Your task to perform on an android device: open chrome and create a bookmark for the current page Image 0: 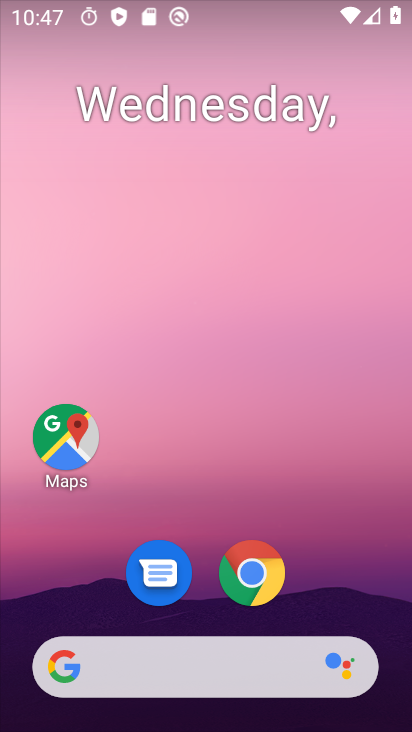
Step 0: click (253, 573)
Your task to perform on an android device: open chrome and create a bookmark for the current page Image 1: 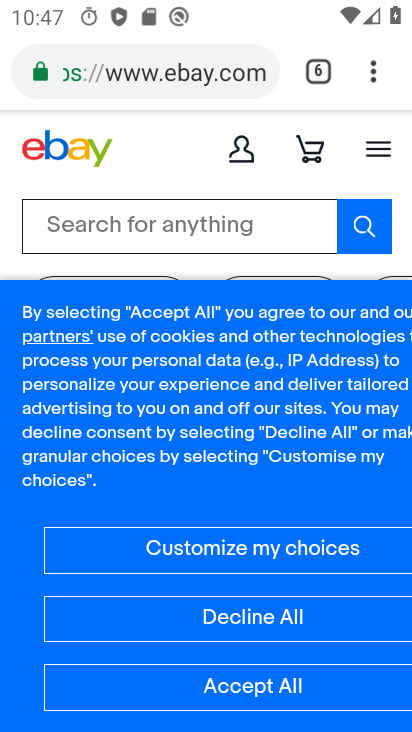
Step 1: click (370, 65)
Your task to perform on an android device: open chrome and create a bookmark for the current page Image 2: 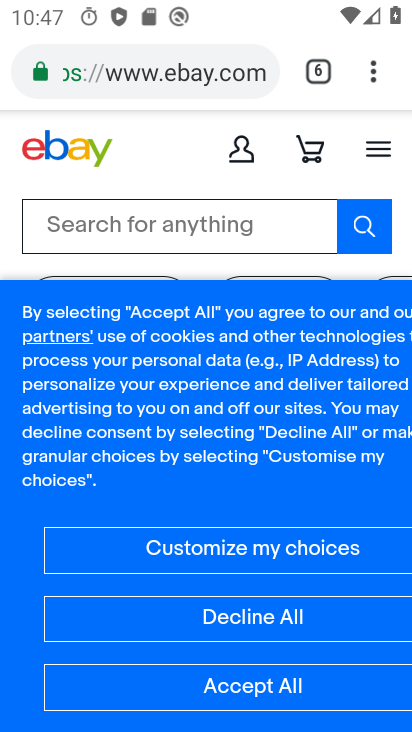
Step 2: click (370, 71)
Your task to perform on an android device: open chrome and create a bookmark for the current page Image 3: 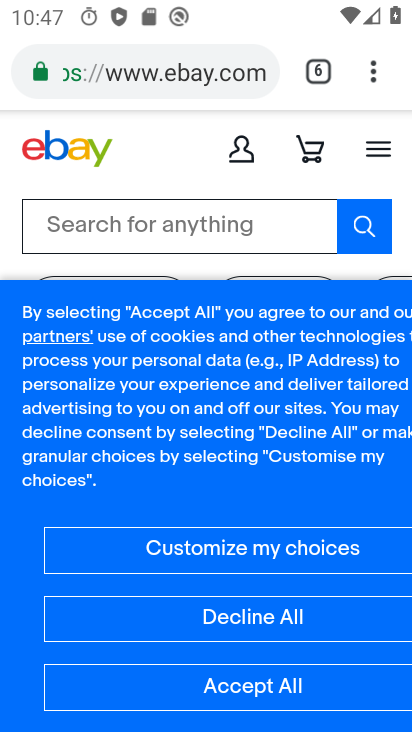
Step 3: click (374, 66)
Your task to perform on an android device: open chrome and create a bookmark for the current page Image 4: 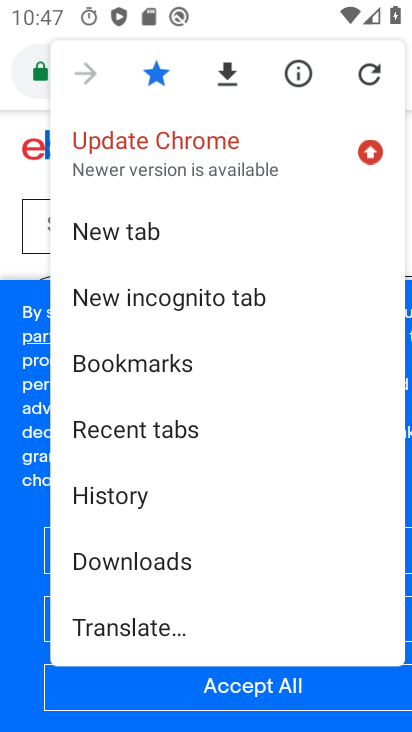
Step 4: click (138, 230)
Your task to perform on an android device: open chrome and create a bookmark for the current page Image 5: 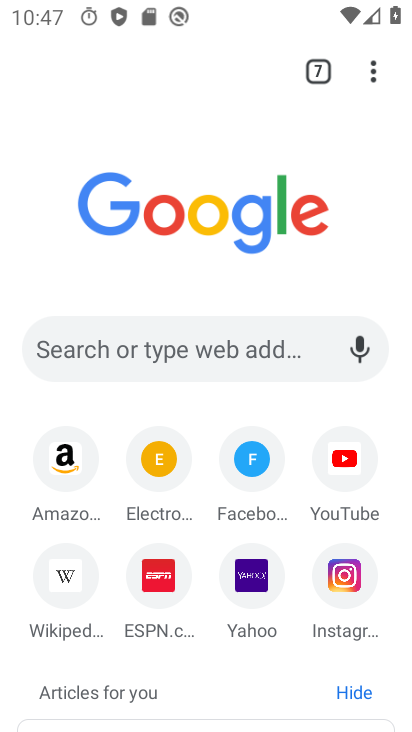
Step 5: click (163, 355)
Your task to perform on an android device: open chrome and create a bookmark for the current page Image 6: 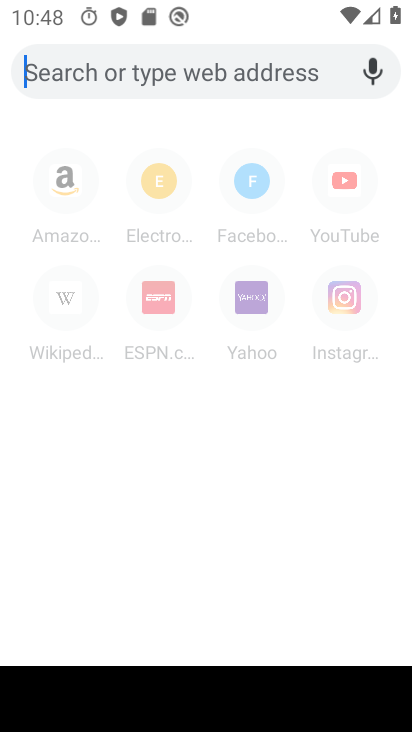
Step 6: type "www.goody .com"
Your task to perform on an android device: open chrome and create a bookmark for the current page Image 7: 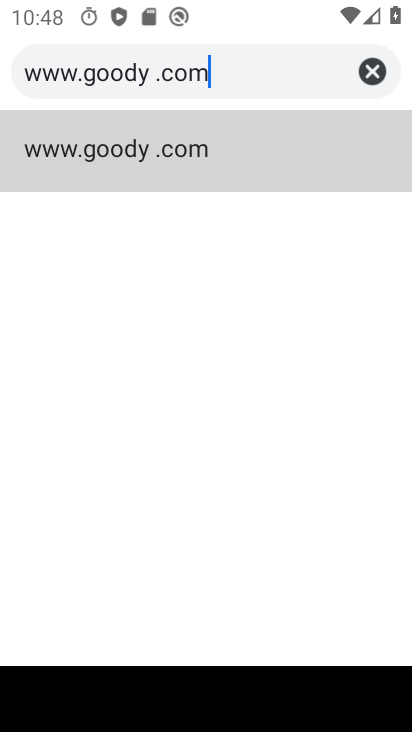
Step 7: click (103, 147)
Your task to perform on an android device: open chrome and create a bookmark for the current page Image 8: 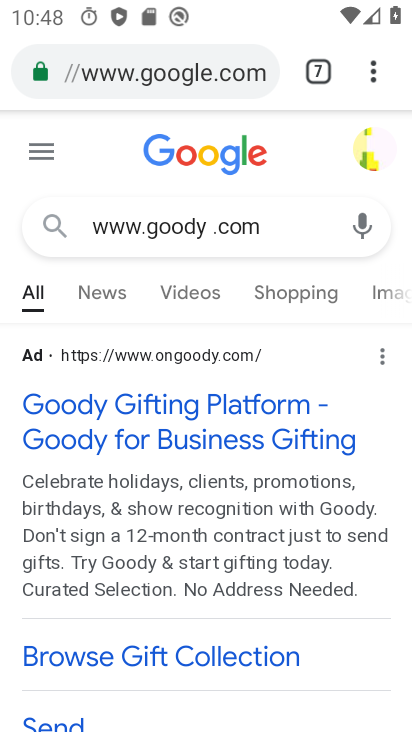
Step 8: click (369, 69)
Your task to perform on an android device: open chrome and create a bookmark for the current page Image 9: 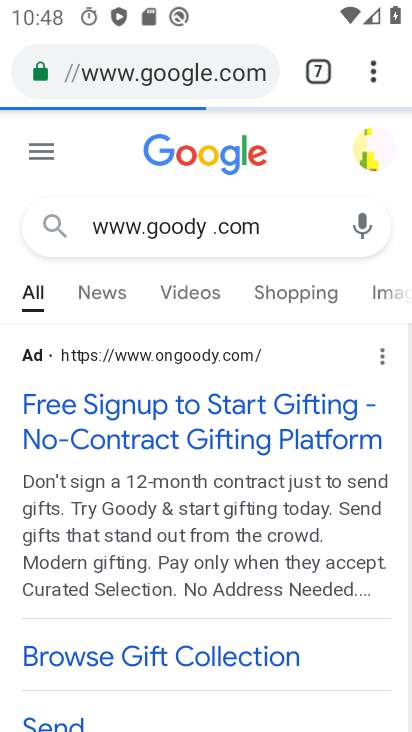
Step 9: click (369, 69)
Your task to perform on an android device: open chrome and create a bookmark for the current page Image 10: 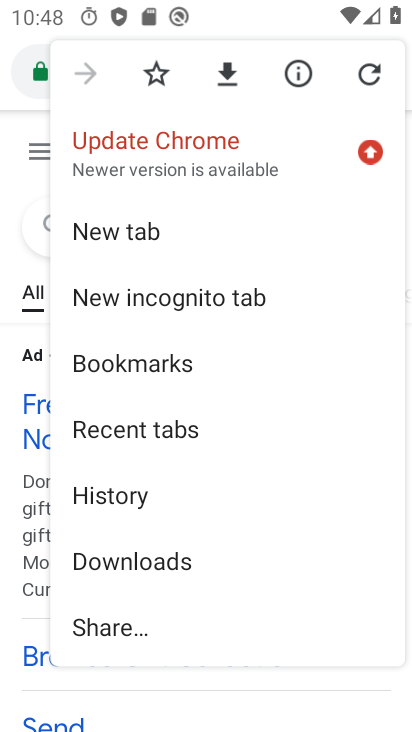
Step 10: click (157, 78)
Your task to perform on an android device: open chrome and create a bookmark for the current page Image 11: 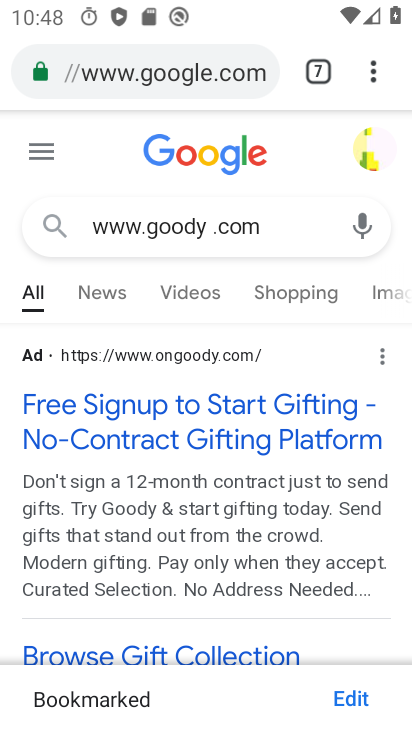
Step 11: task complete